Your task to perform on an android device: Find coffee shops on Maps Image 0: 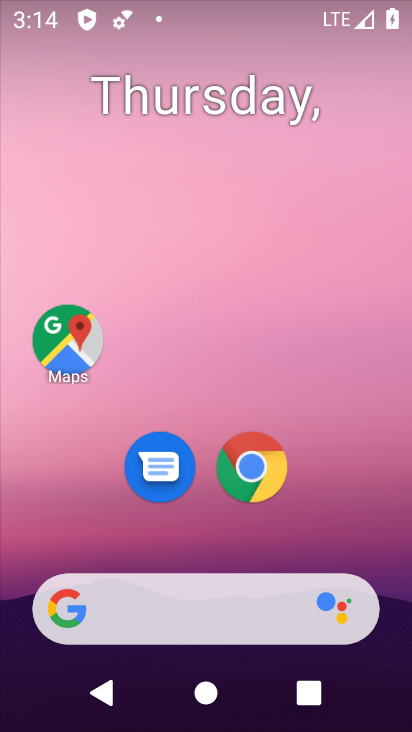
Step 0: drag from (143, 602) to (253, 72)
Your task to perform on an android device: Find coffee shops on Maps Image 1: 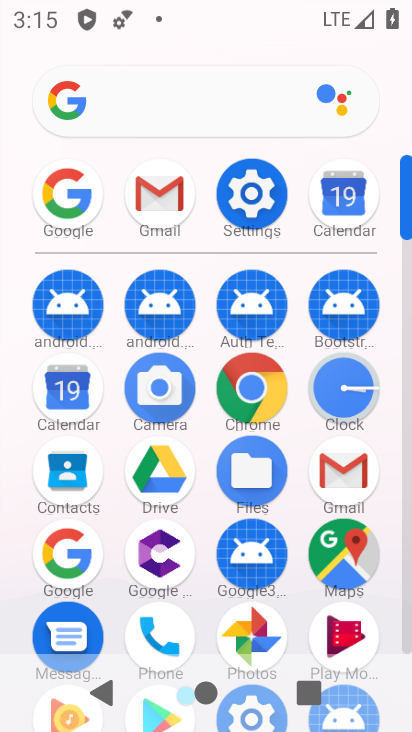
Step 1: click (271, 186)
Your task to perform on an android device: Find coffee shops on Maps Image 2: 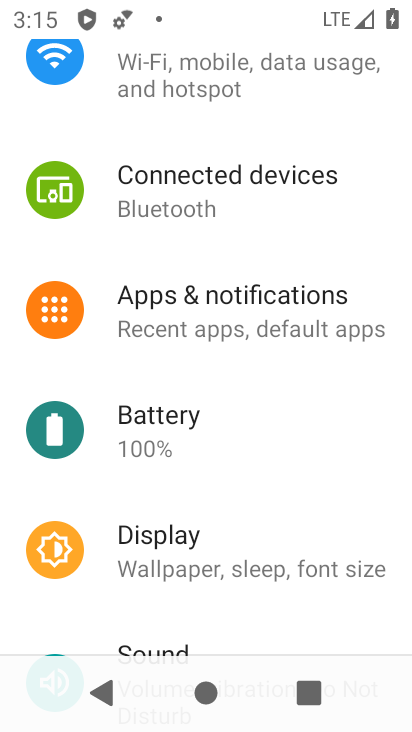
Step 2: click (182, 317)
Your task to perform on an android device: Find coffee shops on Maps Image 3: 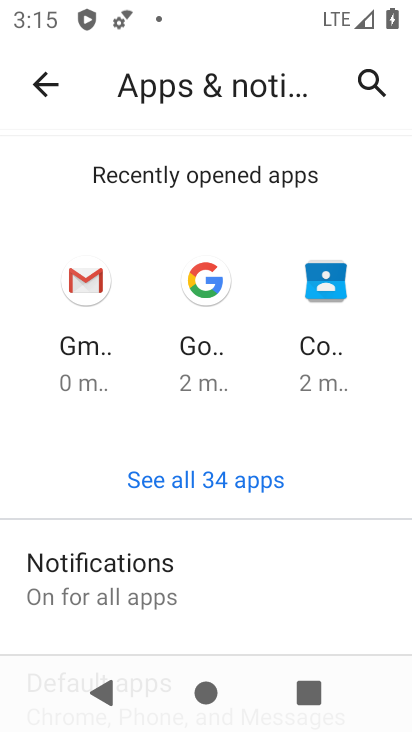
Step 3: task complete